Your task to perform on an android device: Open Chrome and go to the settings page Image 0: 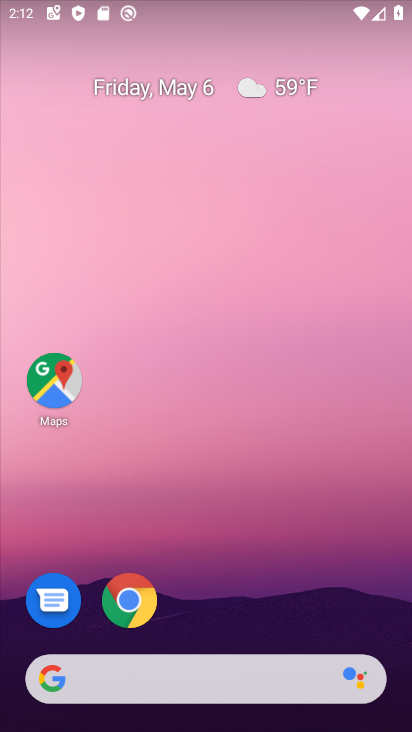
Step 0: drag from (265, 519) to (265, 66)
Your task to perform on an android device: Open Chrome and go to the settings page Image 1: 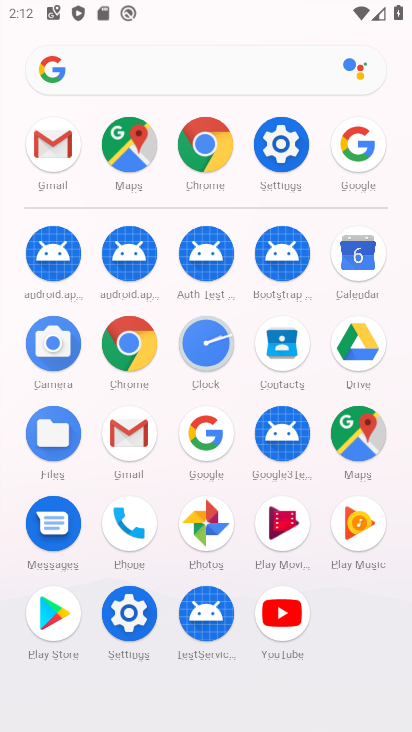
Step 1: click (206, 142)
Your task to perform on an android device: Open Chrome and go to the settings page Image 2: 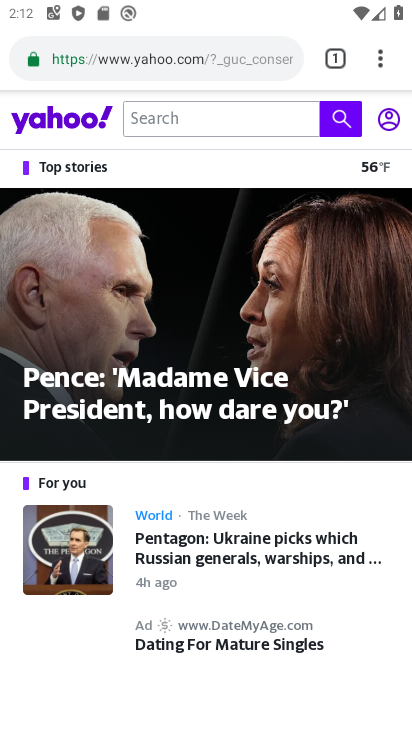
Step 2: click (370, 47)
Your task to perform on an android device: Open Chrome and go to the settings page Image 3: 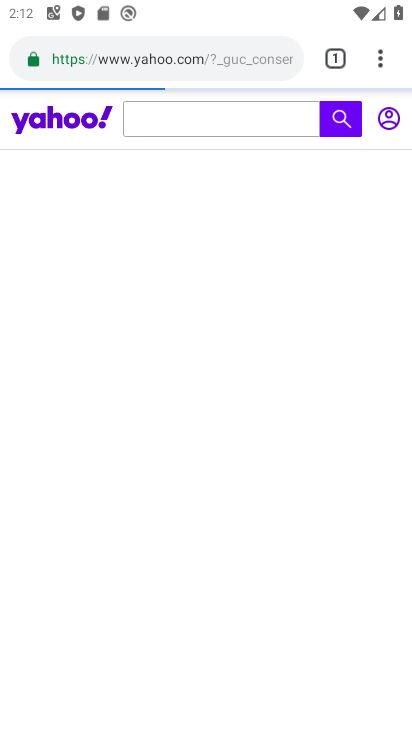
Step 3: click (366, 56)
Your task to perform on an android device: Open Chrome and go to the settings page Image 4: 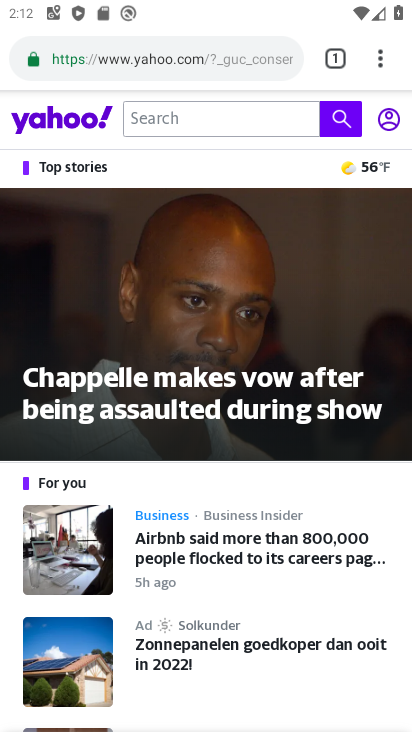
Step 4: click (375, 58)
Your task to perform on an android device: Open Chrome and go to the settings page Image 5: 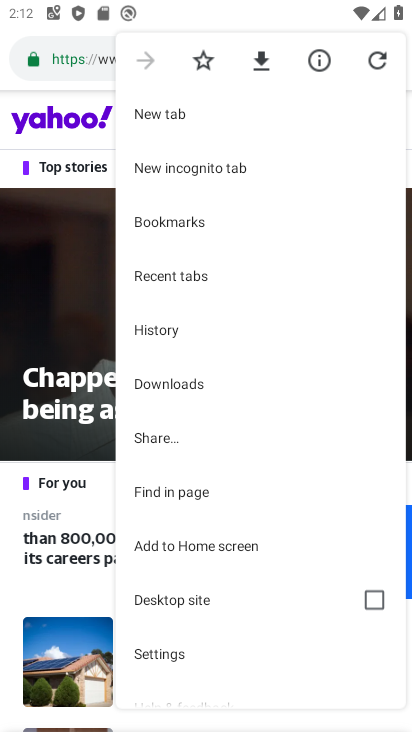
Step 5: click (215, 649)
Your task to perform on an android device: Open Chrome and go to the settings page Image 6: 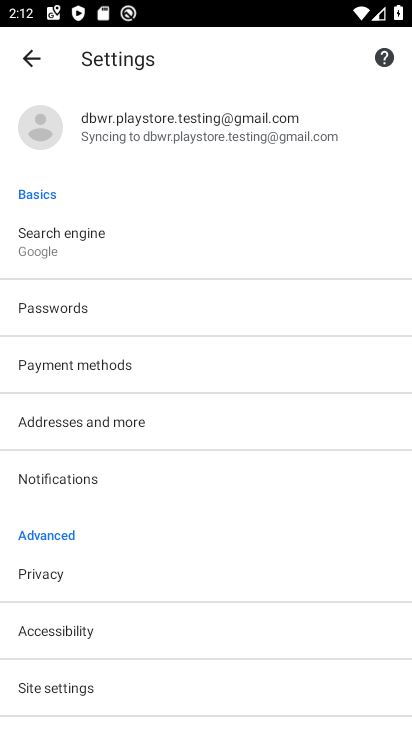
Step 6: task complete